Your task to perform on an android device: Open Chrome and go to settings Image 0: 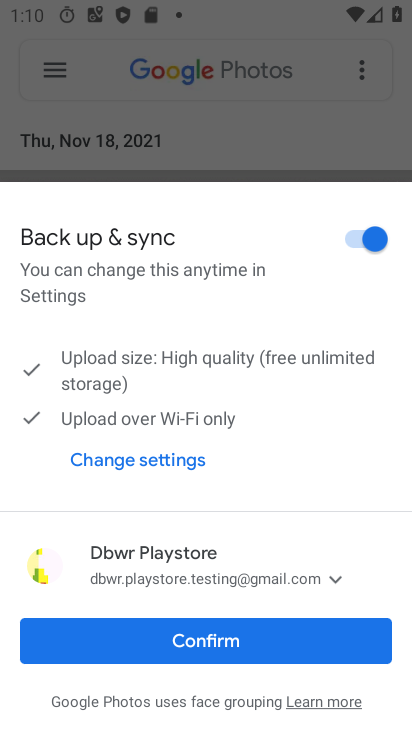
Step 0: press home button
Your task to perform on an android device: Open Chrome and go to settings Image 1: 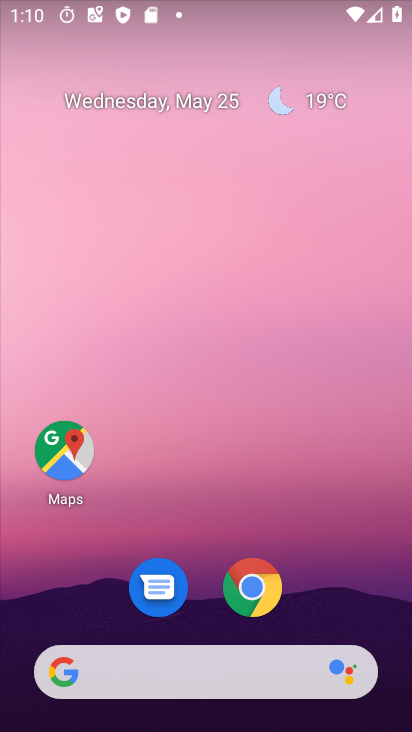
Step 1: click (251, 592)
Your task to perform on an android device: Open Chrome and go to settings Image 2: 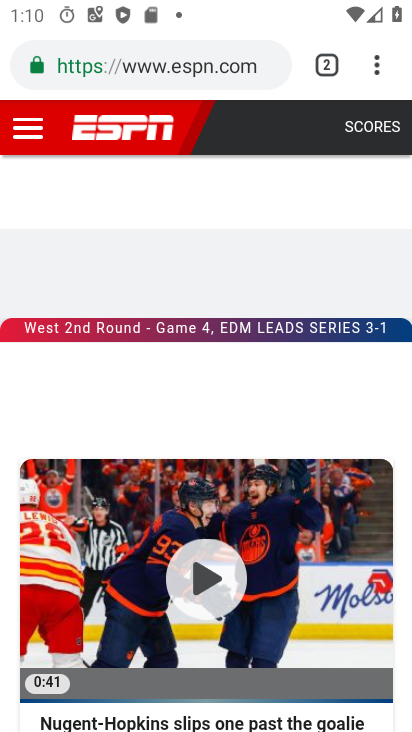
Step 2: click (375, 73)
Your task to perform on an android device: Open Chrome and go to settings Image 3: 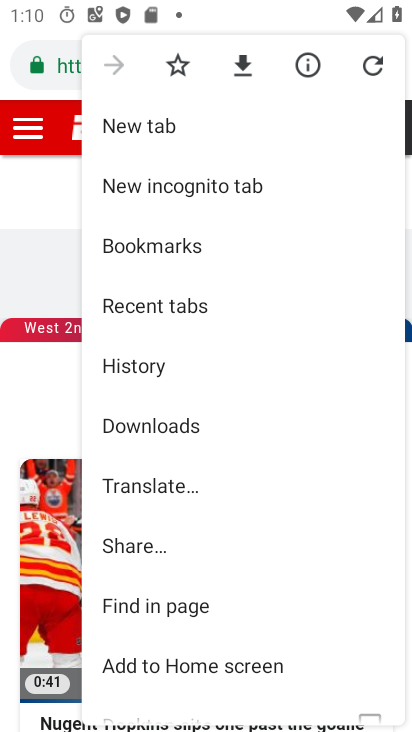
Step 3: drag from (147, 649) to (146, 331)
Your task to perform on an android device: Open Chrome and go to settings Image 4: 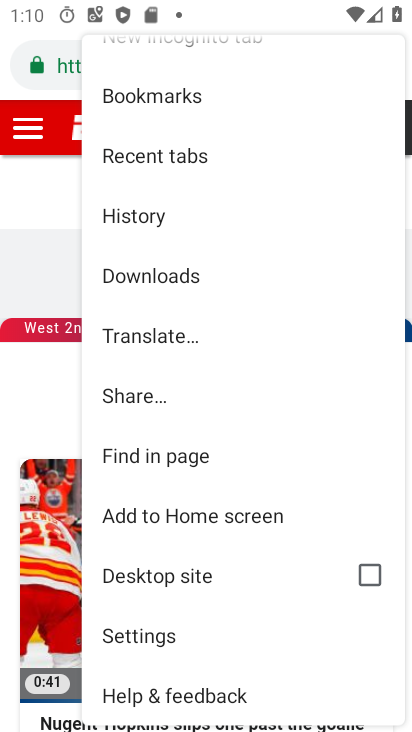
Step 4: click (141, 635)
Your task to perform on an android device: Open Chrome and go to settings Image 5: 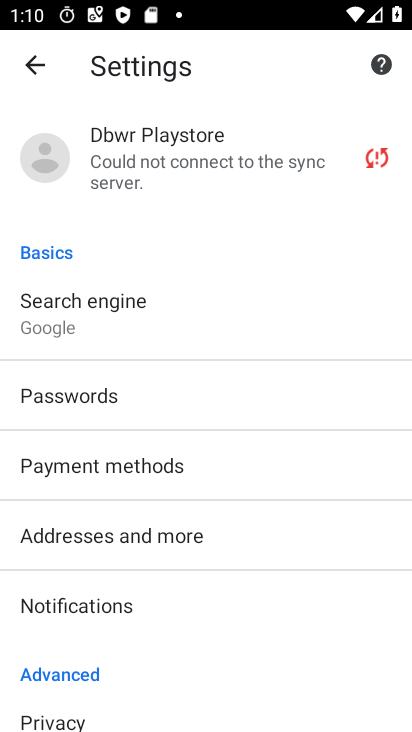
Step 5: task complete